Your task to perform on an android device: Open Chrome and go to settings Image 0: 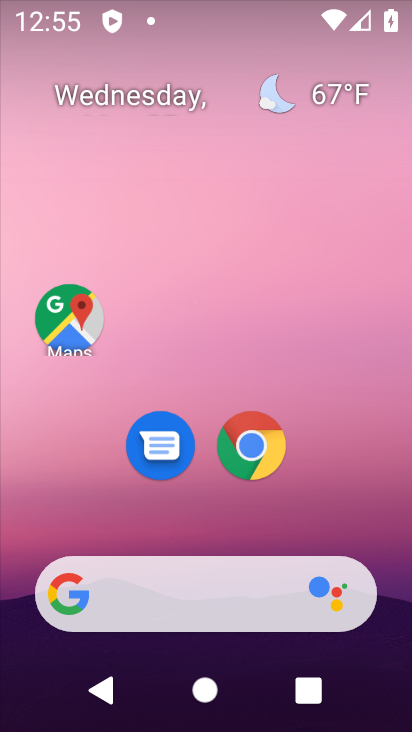
Step 0: click (267, 441)
Your task to perform on an android device: Open Chrome and go to settings Image 1: 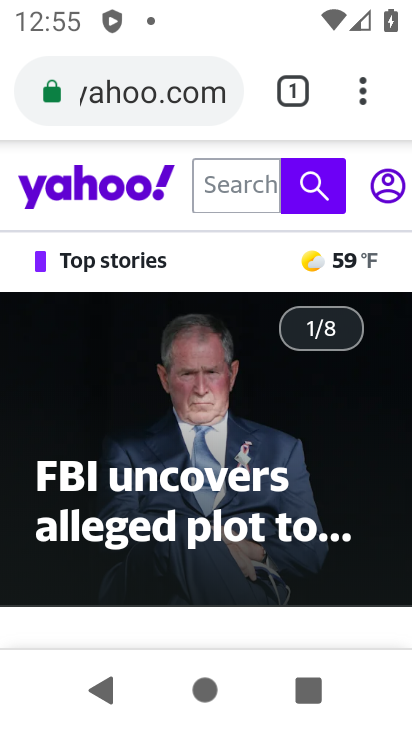
Step 1: click (366, 102)
Your task to perform on an android device: Open Chrome and go to settings Image 2: 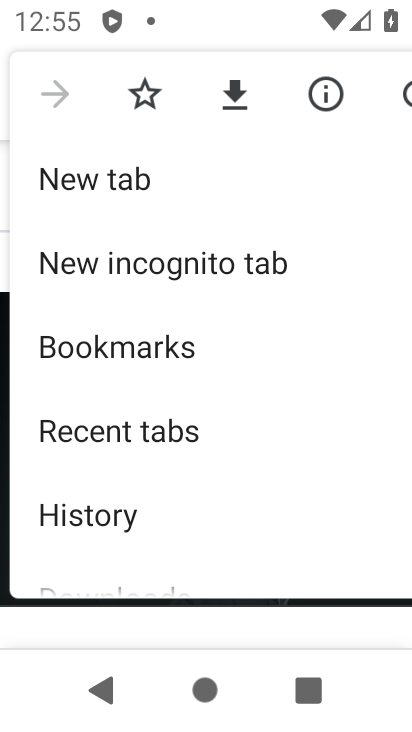
Step 2: drag from (200, 550) to (177, 137)
Your task to perform on an android device: Open Chrome and go to settings Image 3: 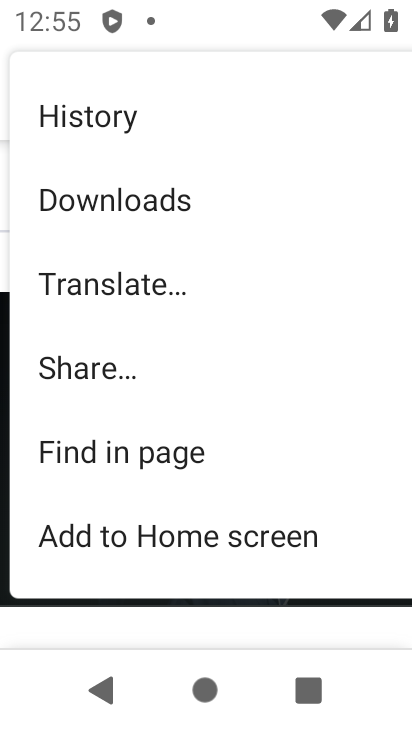
Step 3: drag from (170, 513) to (161, 219)
Your task to perform on an android device: Open Chrome and go to settings Image 4: 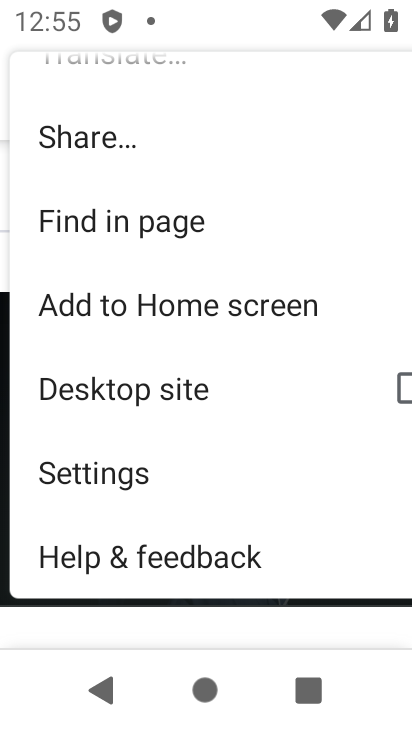
Step 4: click (118, 472)
Your task to perform on an android device: Open Chrome and go to settings Image 5: 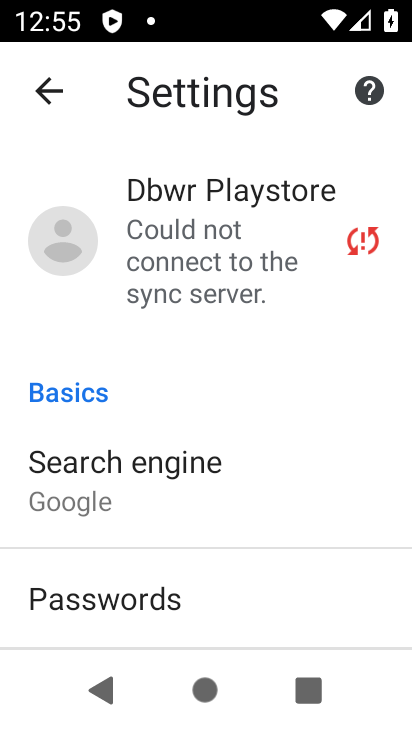
Step 5: task complete